Your task to perform on an android device: open chrome and create a bookmark for the current page Image 0: 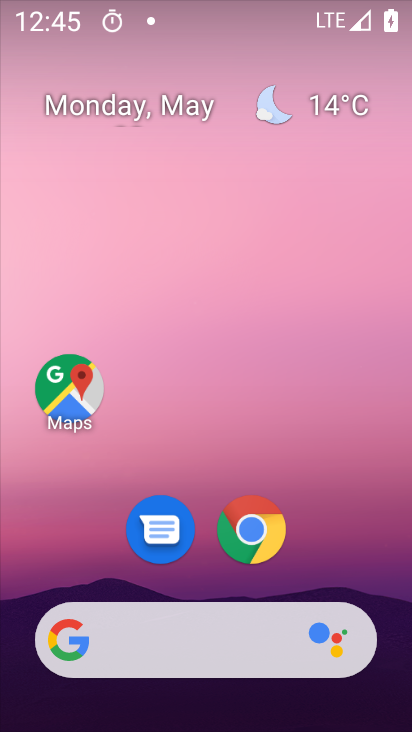
Step 0: drag from (367, 592) to (363, 231)
Your task to perform on an android device: open chrome and create a bookmark for the current page Image 1: 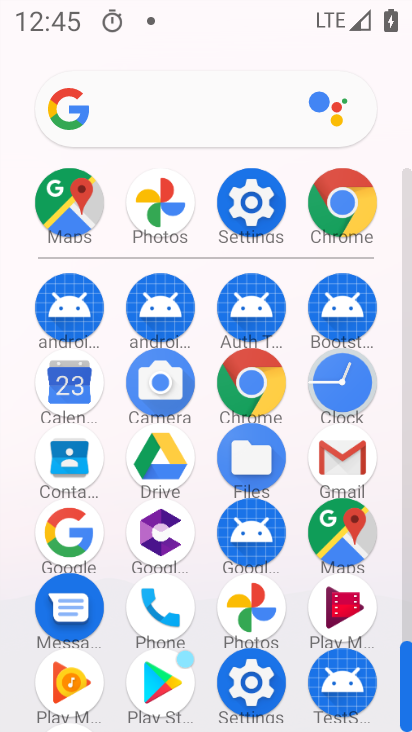
Step 1: click (266, 397)
Your task to perform on an android device: open chrome and create a bookmark for the current page Image 2: 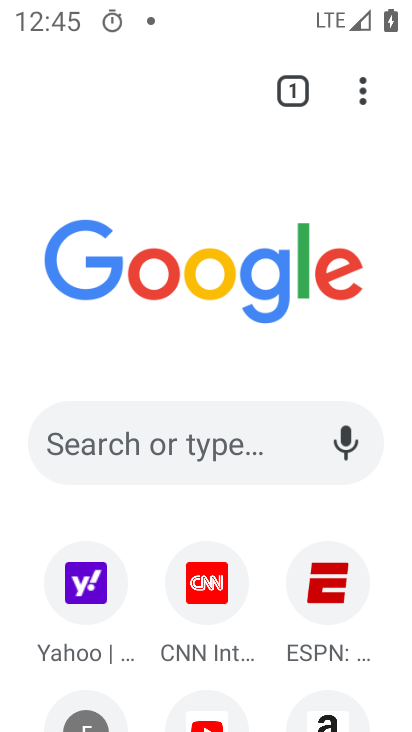
Step 2: click (361, 100)
Your task to perform on an android device: open chrome and create a bookmark for the current page Image 3: 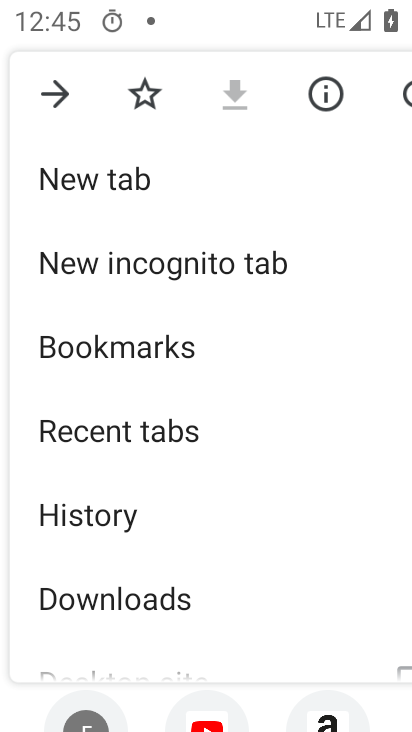
Step 3: click (140, 93)
Your task to perform on an android device: open chrome and create a bookmark for the current page Image 4: 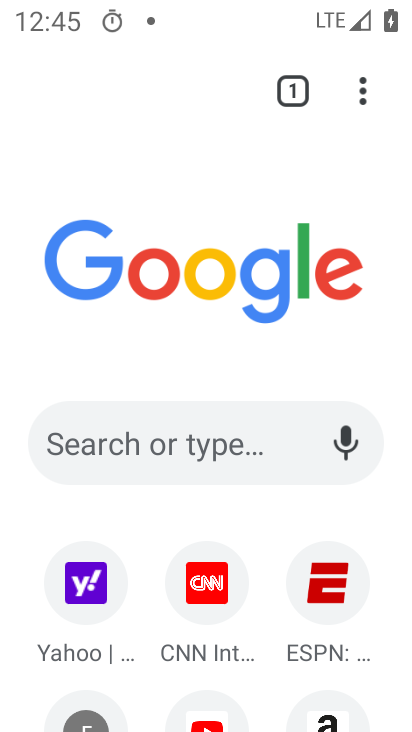
Step 4: task complete